Your task to perform on an android device: see sites visited before in the chrome app Image 0: 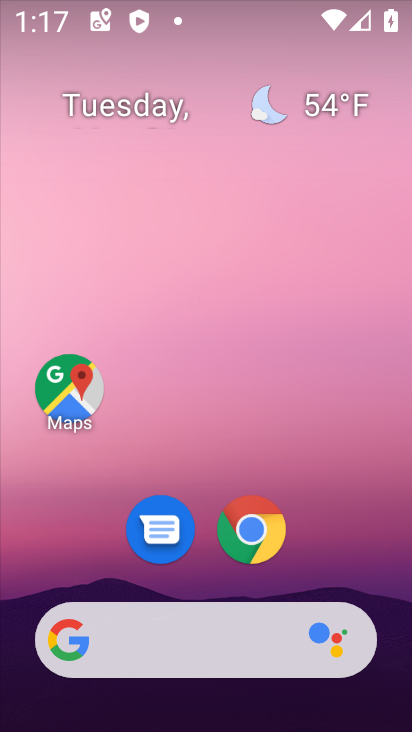
Step 0: click (254, 528)
Your task to perform on an android device: see sites visited before in the chrome app Image 1: 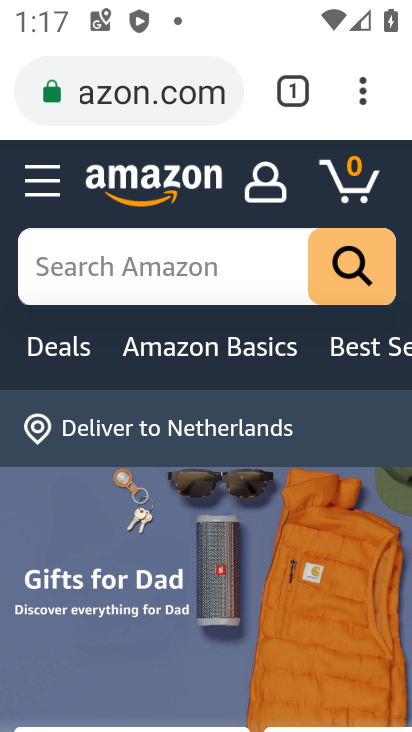
Step 1: click (363, 90)
Your task to perform on an android device: see sites visited before in the chrome app Image 2: 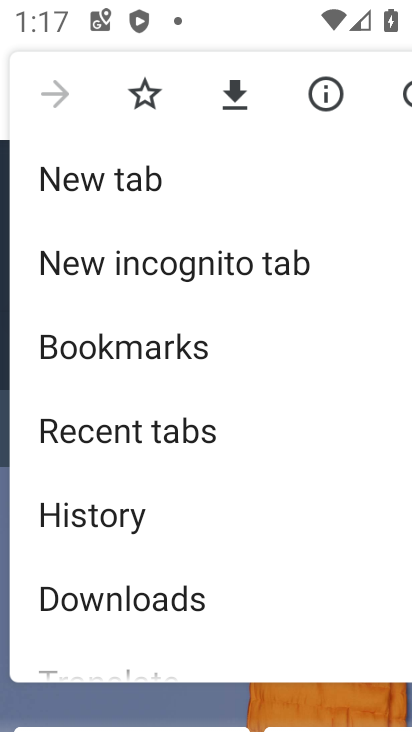
Step 2: click (119, 517)
Your task to perform on an android device: see sites visited before in the chrome app Image 3: 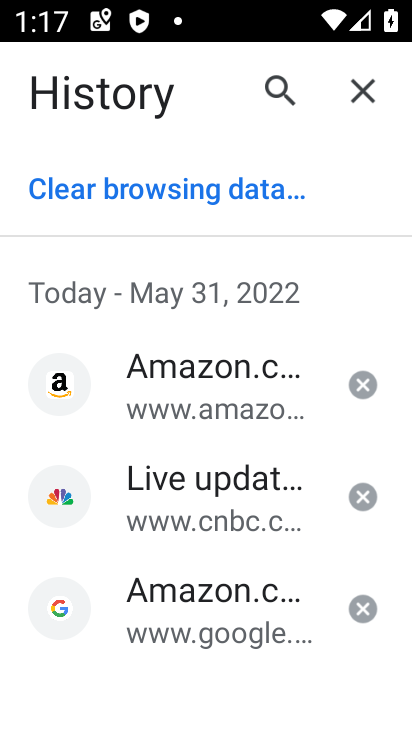
Step 3: task complete